Your task to perform on an android device: allow notifications from all sites in the chrome app Image 0: 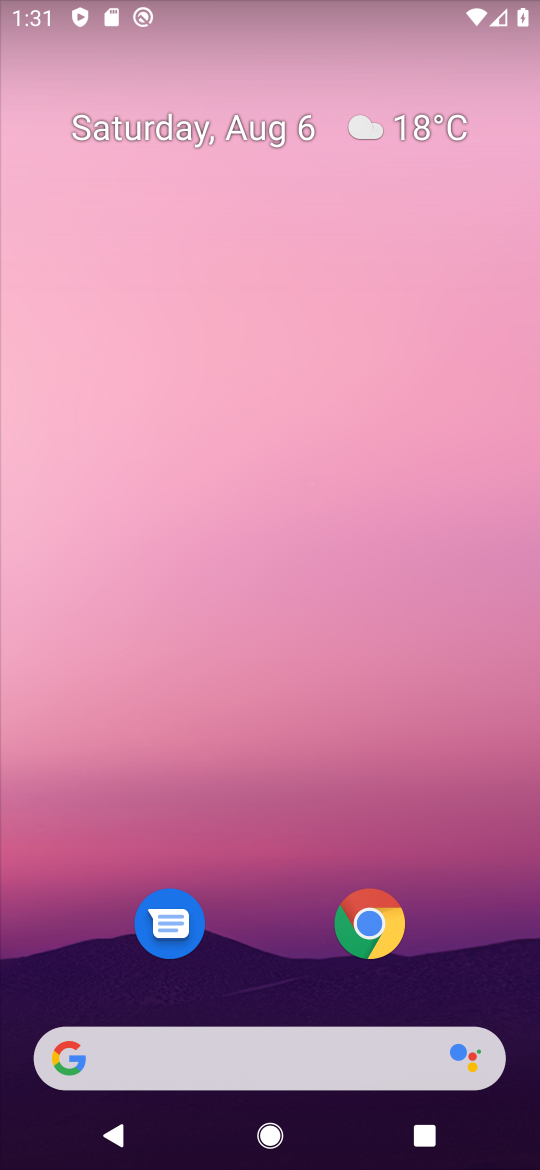
Step 0: click (393, 154)
Your task to perform on an android device: allow notifications from all sites in the chrome app Image 1: 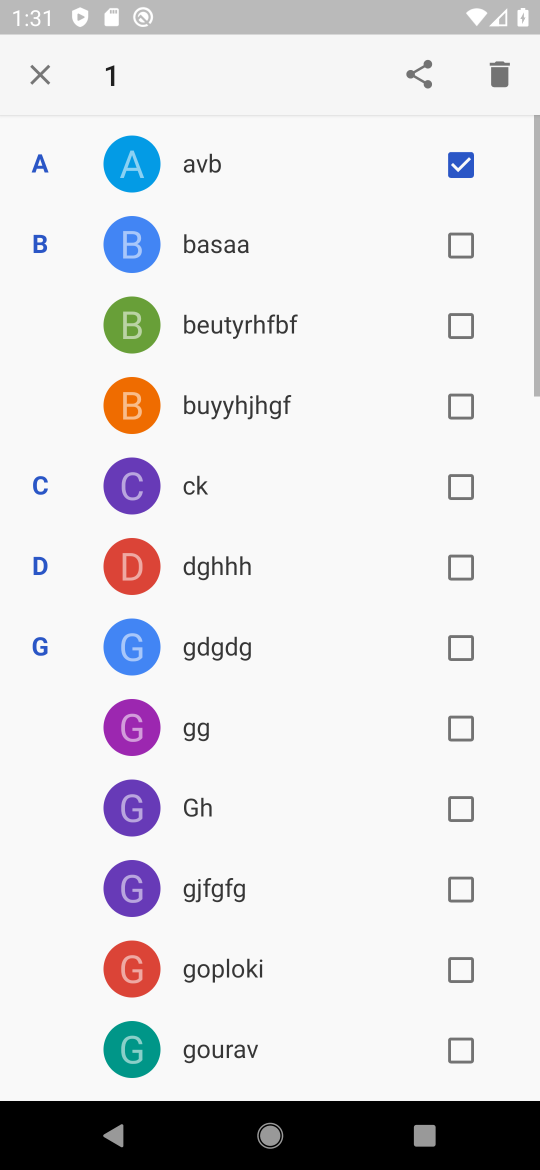
Step 1: drag from (242, 948) to (296, 251)
Your task to perform on an android device: allow notifications from all sites in the chrome app Image 2: 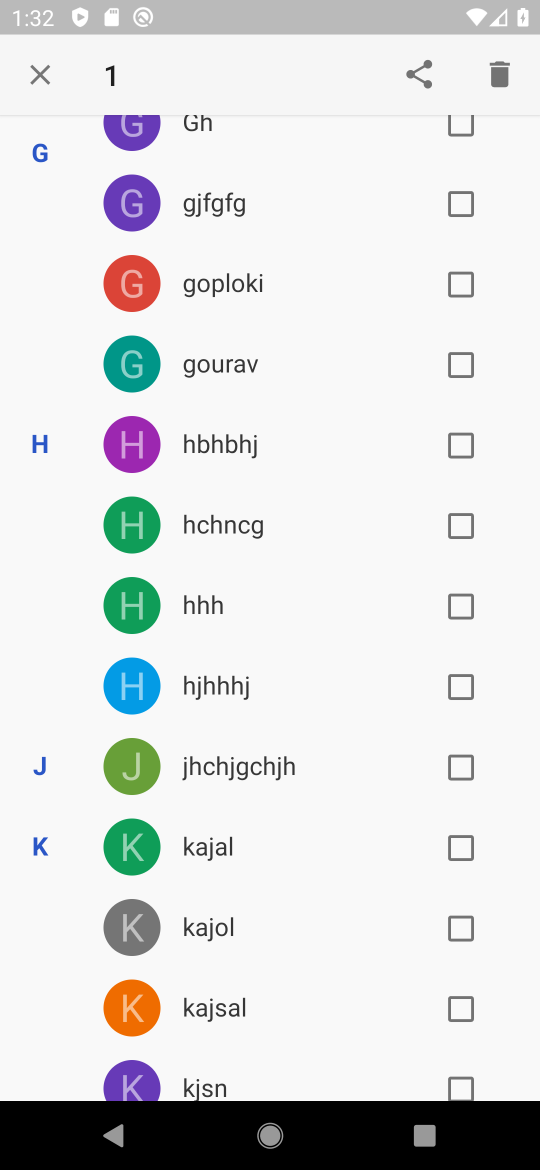
Step 2: press home button
Your task to perform on an android device: allow notifications from all sites in the chrome app Image 3: 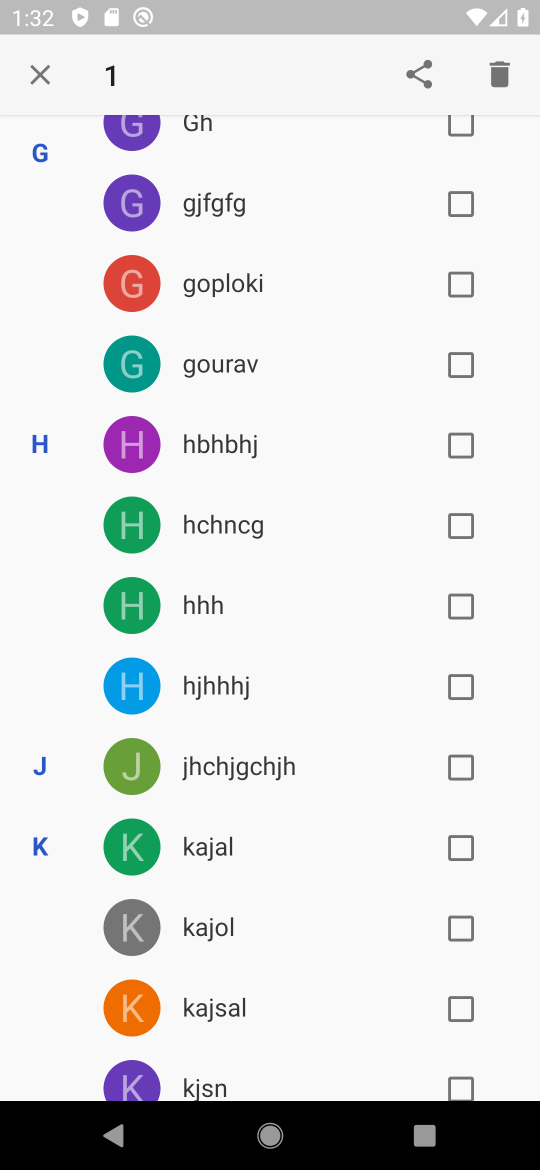
Step 3: press home button
Your task to perform on an android device: allow notifications from all sites in the chrome app Image 4: 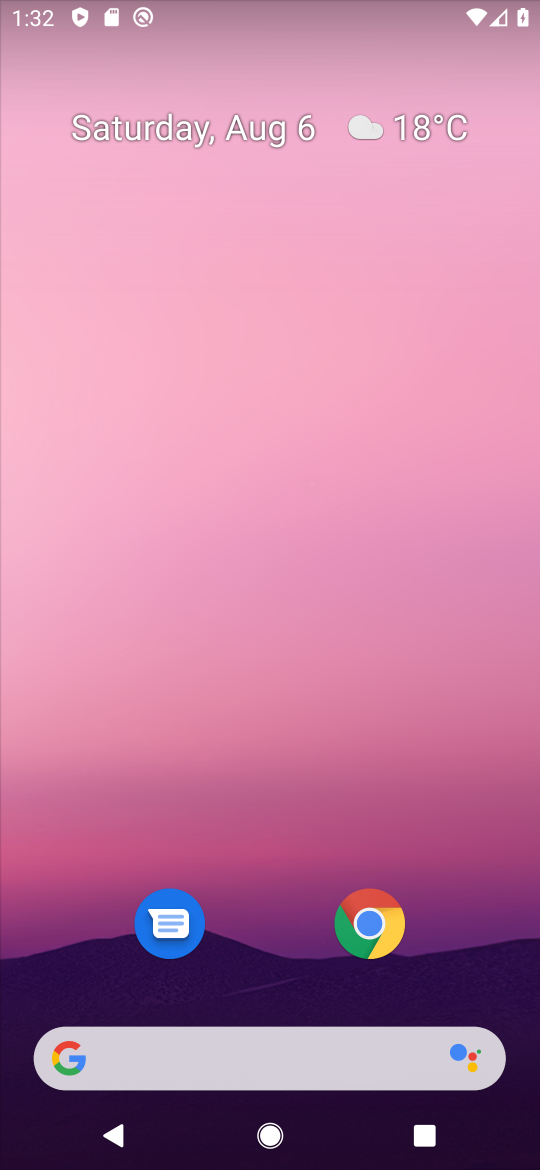
Step 4: drag from (288, 711) to (319, 34)
Your task to perform on an android device: allow notifications from all sites in the chrome app Image 5: 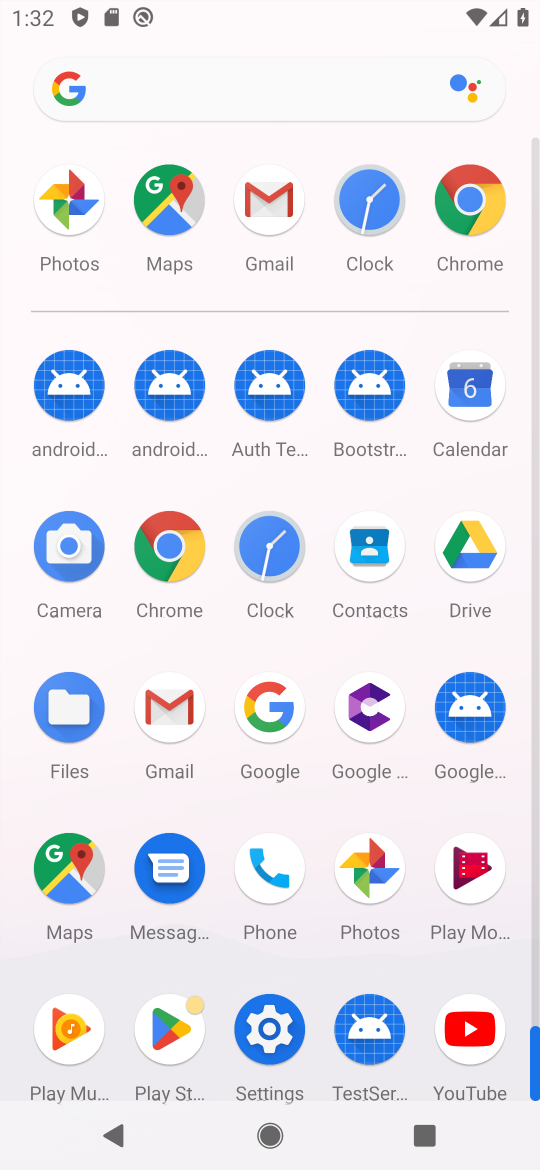
Step 5: click (162, 532)
Your task to perform on an android device: allow notifications from all sites in the chrome app Image 6: 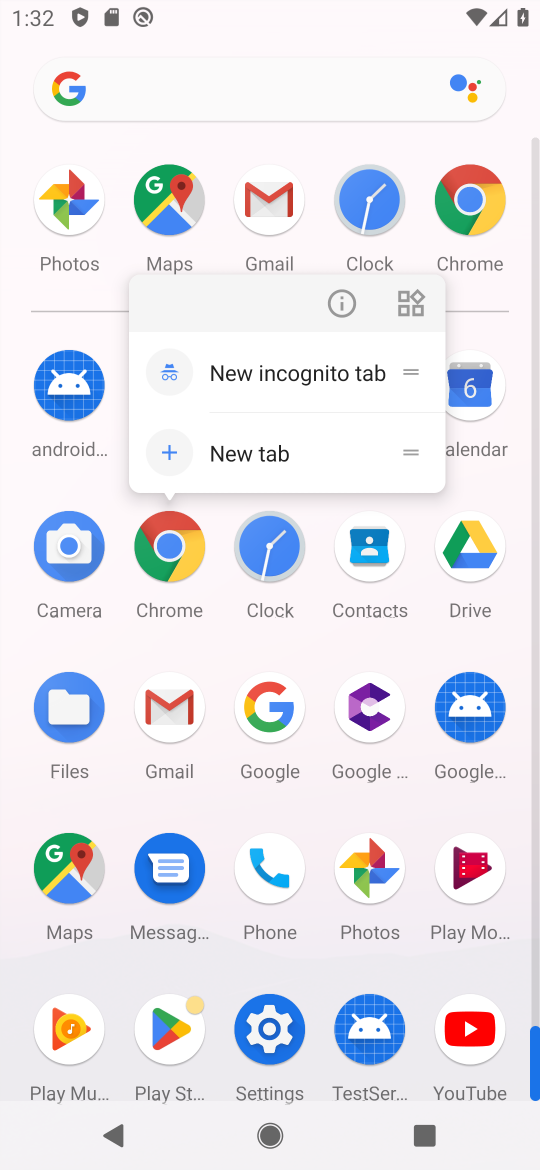
Step 6: click (328, 312)
Your task to perform on an android device: allow notifications from all sites in the chrome app Image 7: 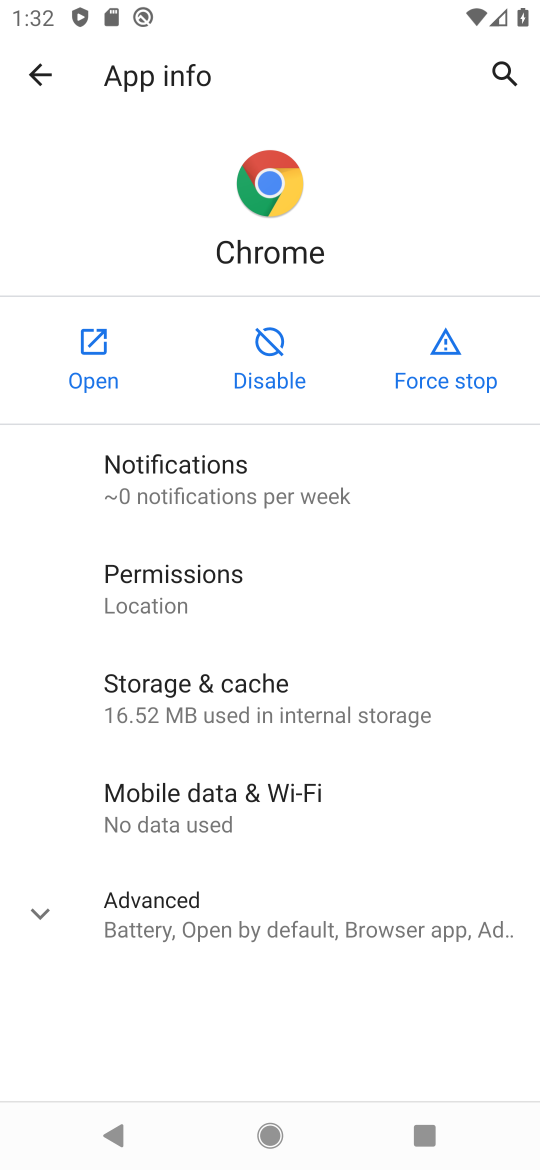
Step 7: click (94, 368)
Your task to perform on an android device: allow notifications from all sites in the chrome app Image 8: 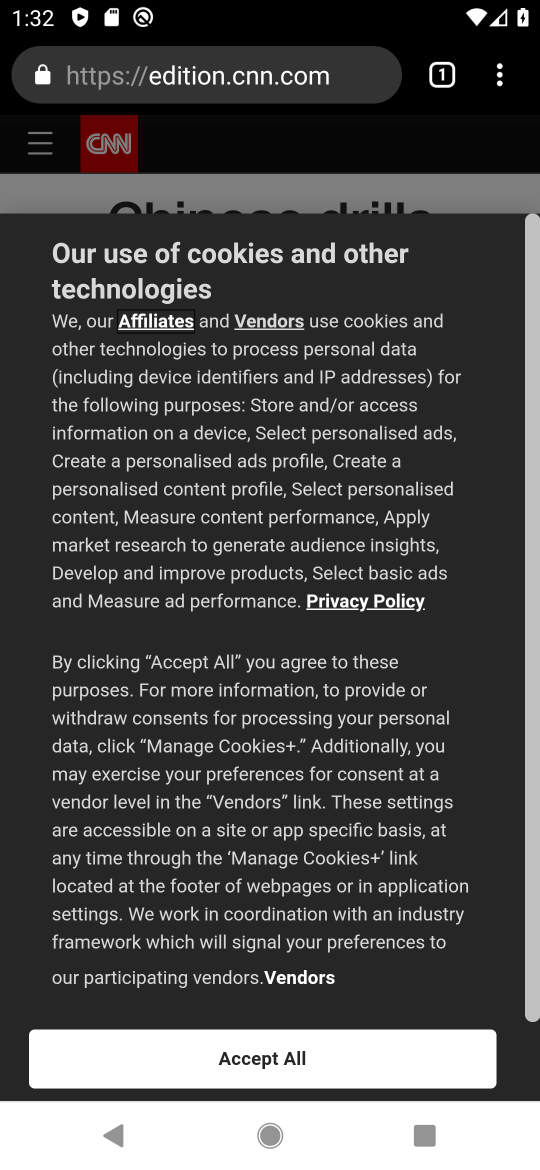
Step 8: drag from (246, 801) to (419, 398)
Your task to perform on an android device: allow notifications from all sites in the chrome app Image 9: 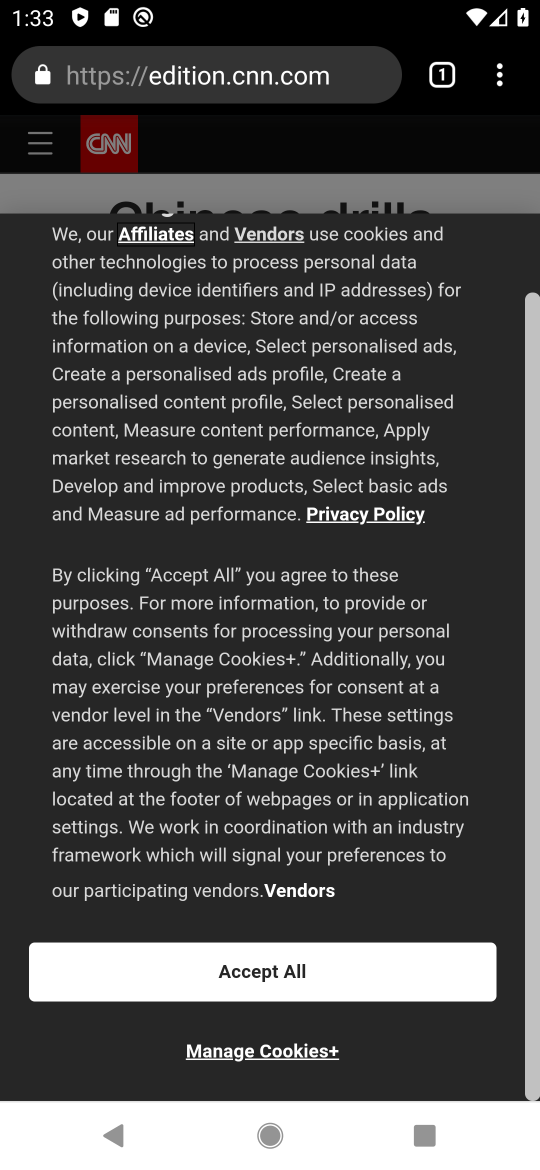
Step 9: drag from (170, 757) to (211, 304)
Your task to perform on an android device: allow notifications from all sites in the chrome app Image 10: 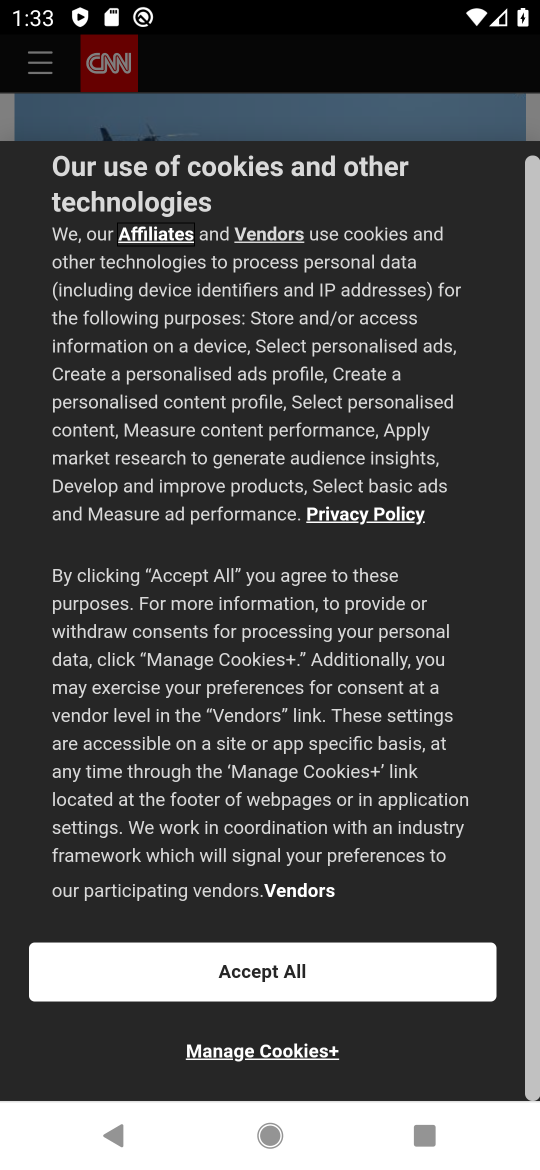
Step 10: drag from (333, 605) to (504, 988)
Your task to perform on an android device: allow notifications from all sites in the chrome app Image 11: 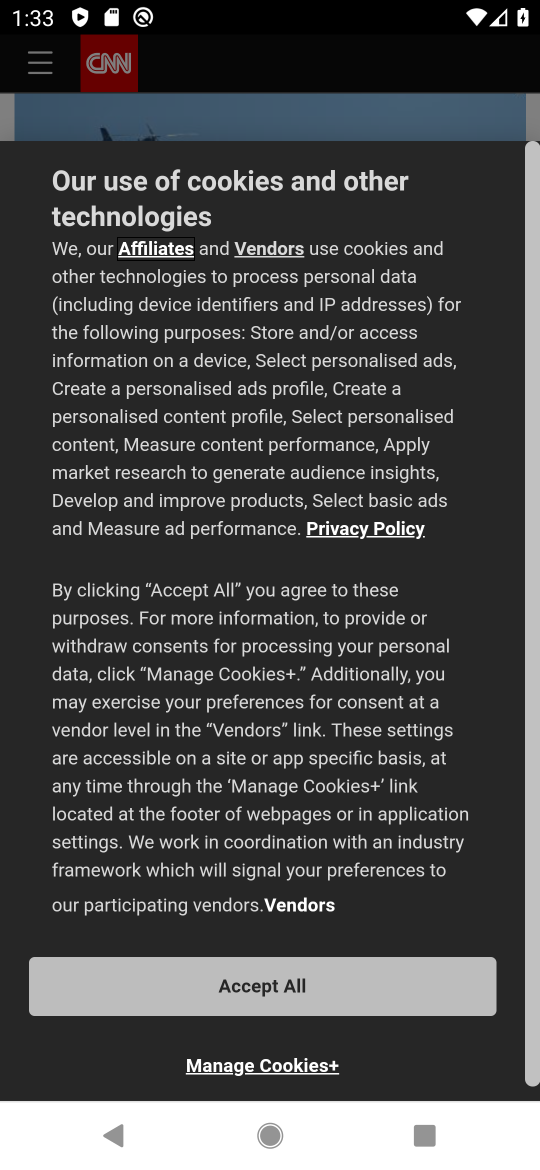
Step 11: drag from (214, 258) to (333, 1071)
Your task to perform on an android device: allow notifications from all sites in the chrome app Image 12: 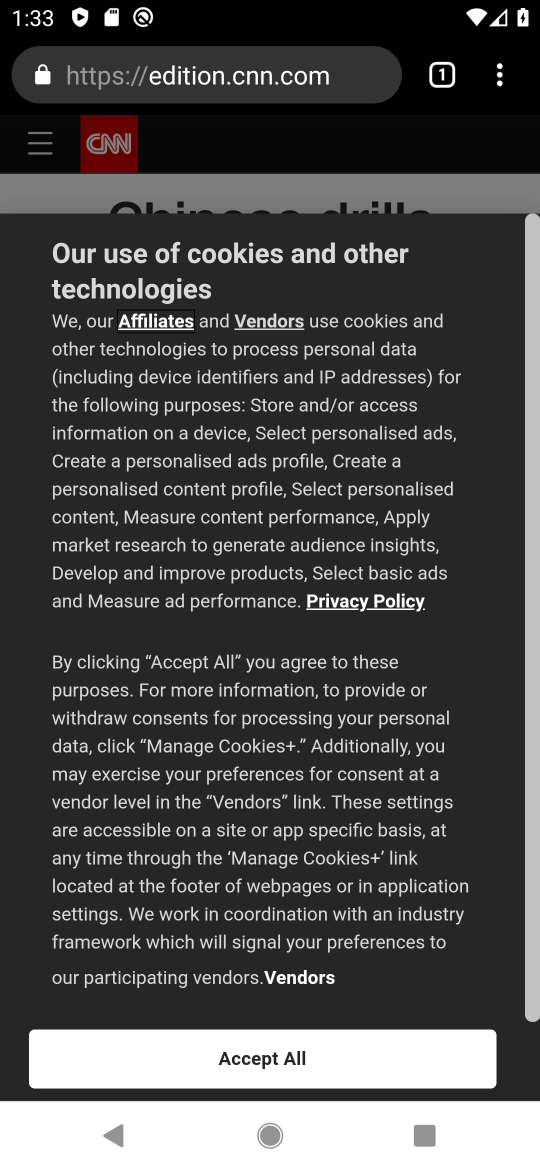
Step 12: drag from (286, 818) to (274, 505)
Your task to perform on an android device: allow notifications from all sites in the chrome app Image 13: 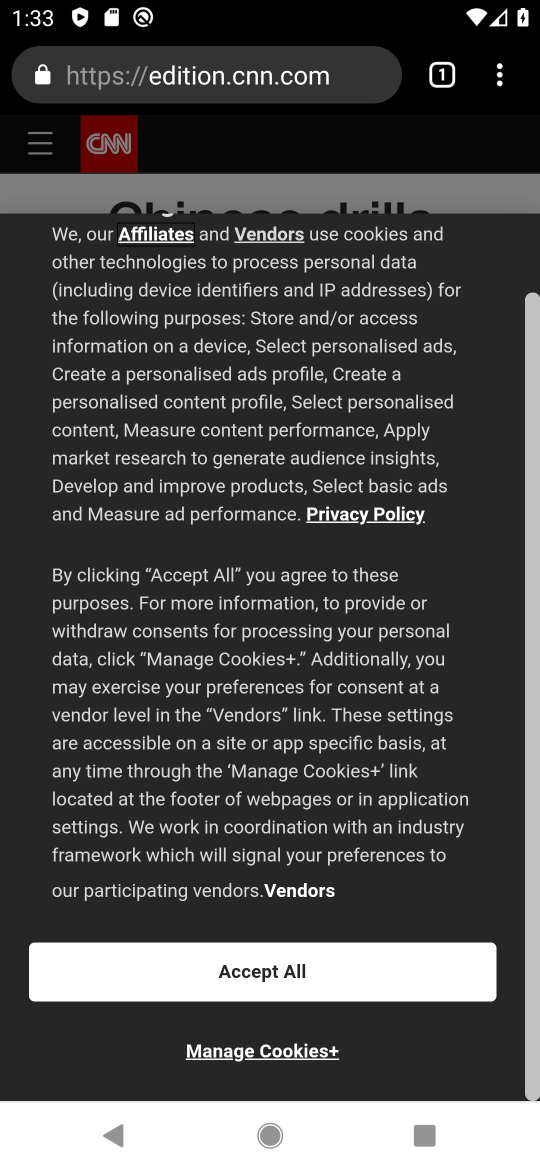
Step 13: drag from (481, 96) to (281, 1008)
Your task to perform on an android device: allow notifications from all sites in the chrome app Image 14: 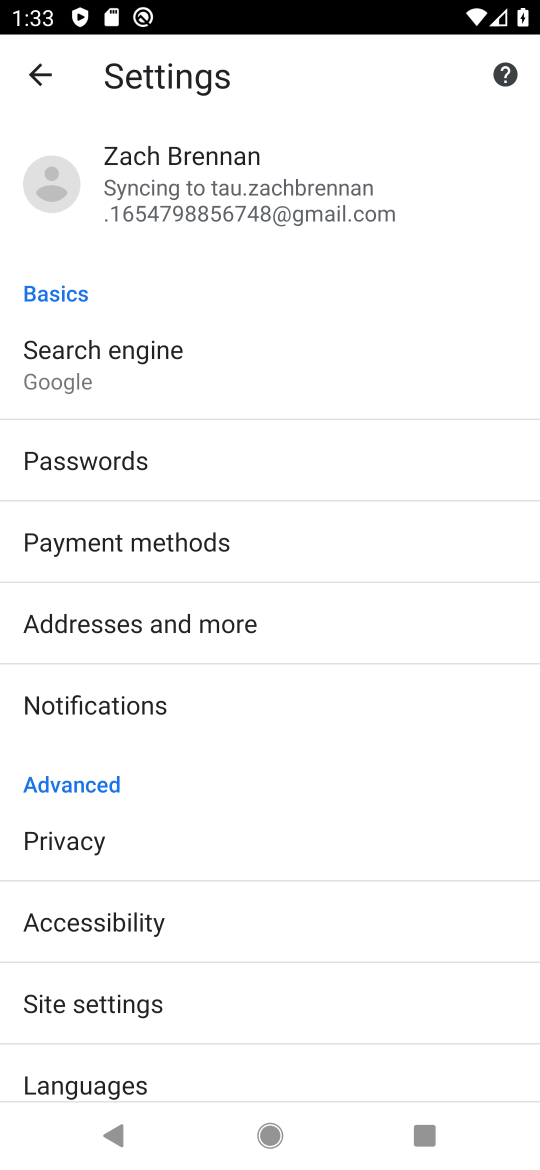
Step 14: drag from (246, 954) to (248, 417)
Your task to perform on an android device: allow notifications from all sites in the chrome app Image 15: 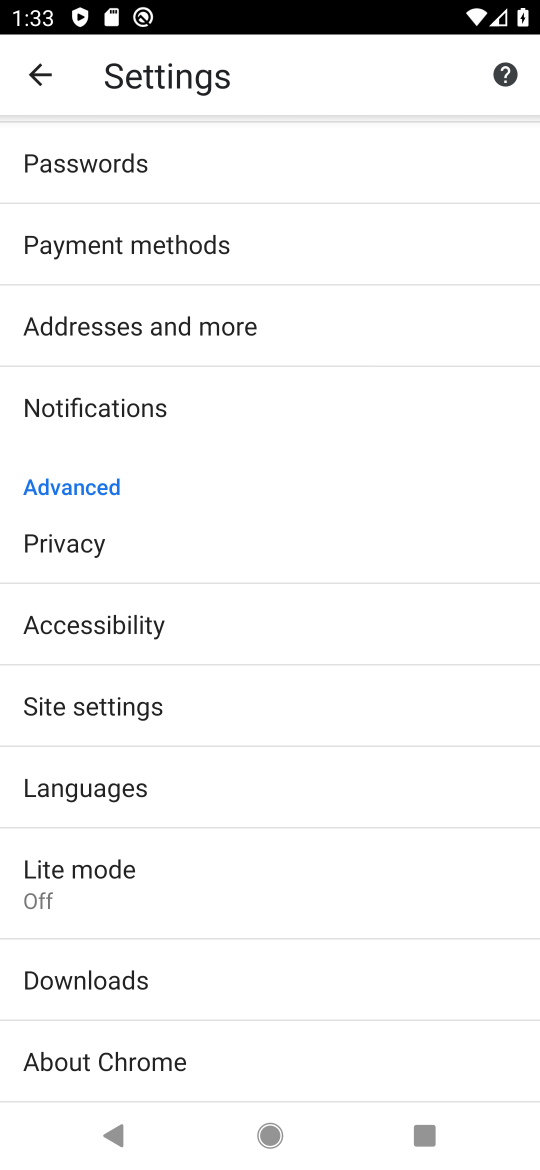
Step 15: click (159, 702)
Your task to perform on an android device: allow notifications from all sites in the chrome app Image 16: 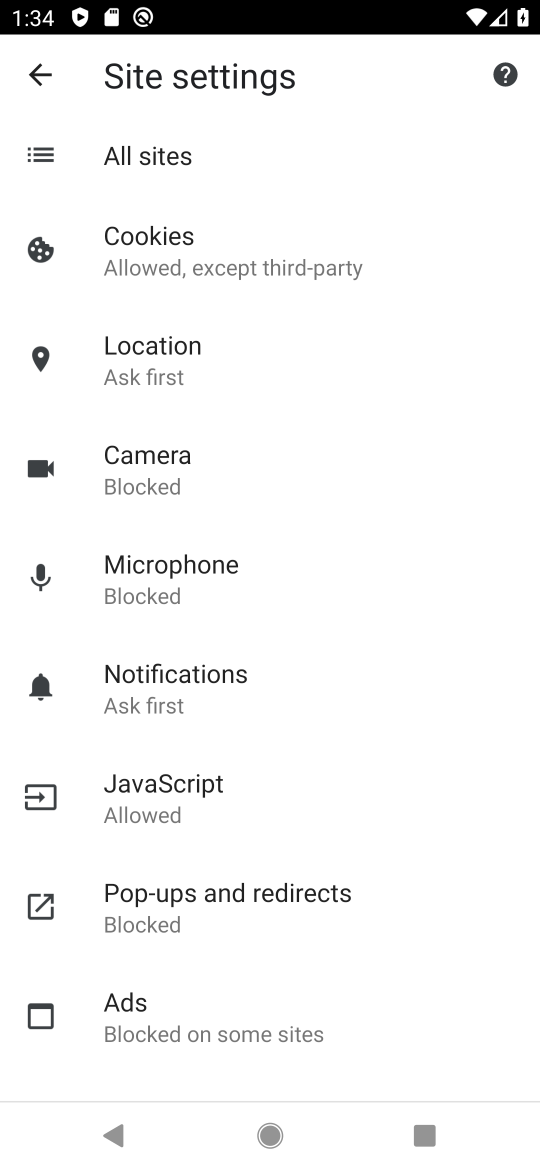
Step 16: drag from (197, 717) to (223, 351)
Your task to perform on an android device: allow notifications from all sites in the chrome app Image 17: 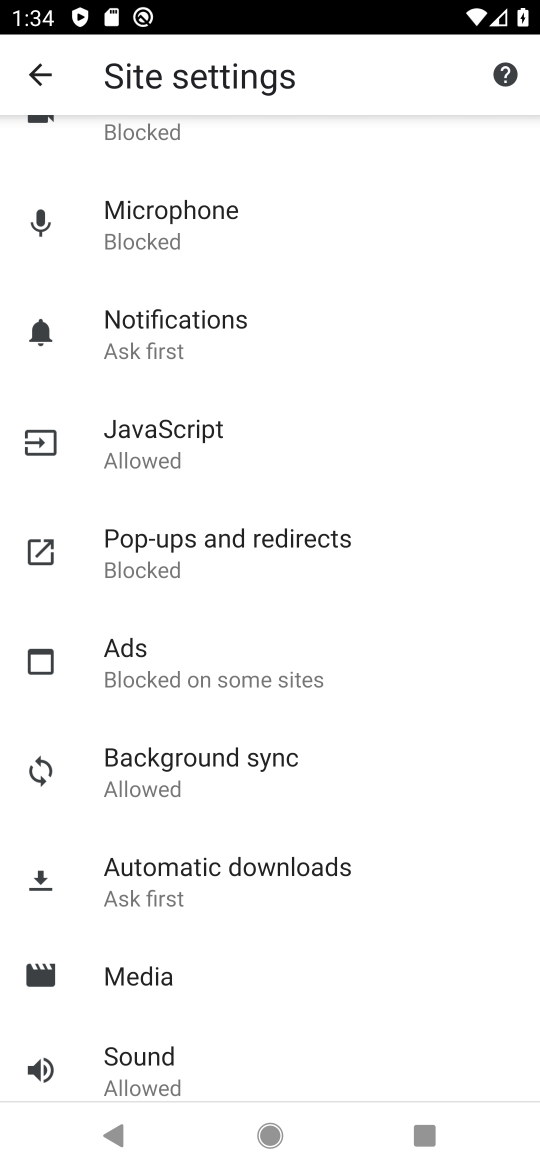
Step 17: drag from (147, 983) to (268, 194)
Your task to perform on an android device: allow notifications from all sites in the chrome app Image 18: 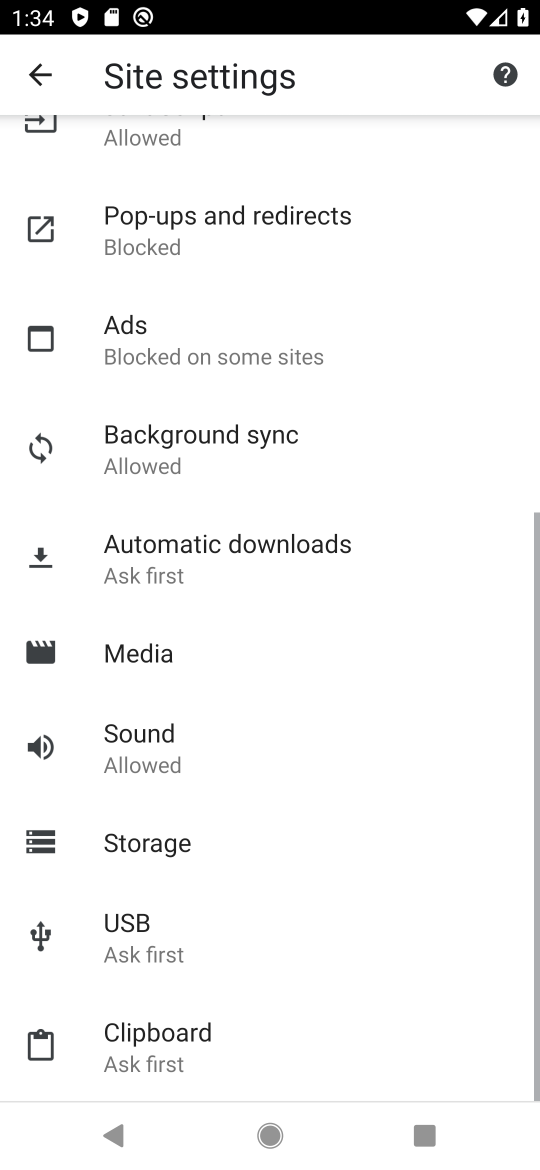
Step 18: drag from (213, 918) to (224, 391)
Your task to perform on an android device: allow notifications from all sites in the chrome app Image 19: 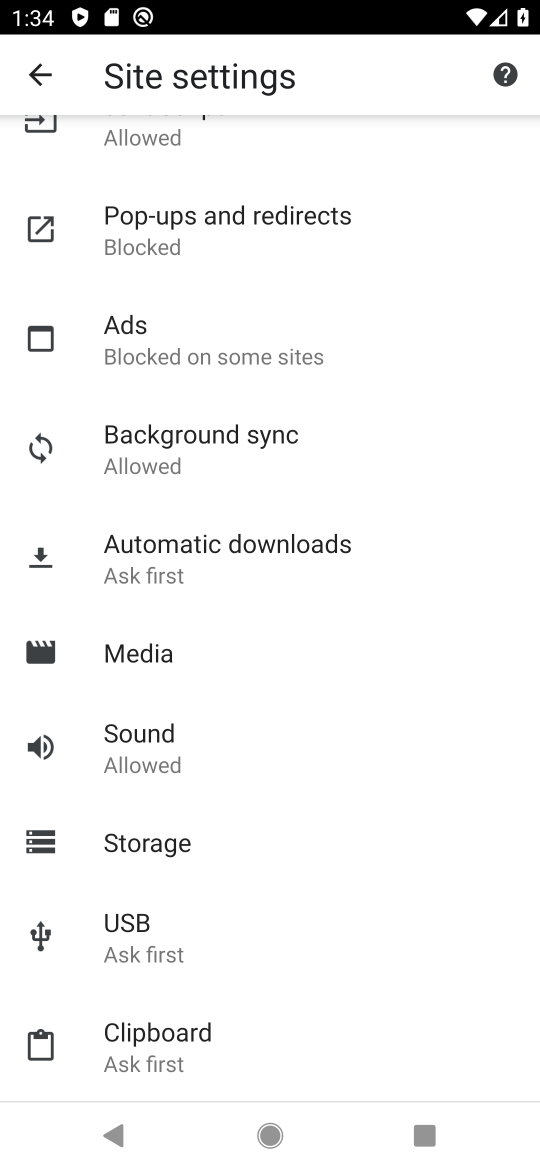
Step 19: drag from (269, 900) to (275, 546)
Your task to perform on an android device: allow notifications from all sites in the chrome app Image 20: 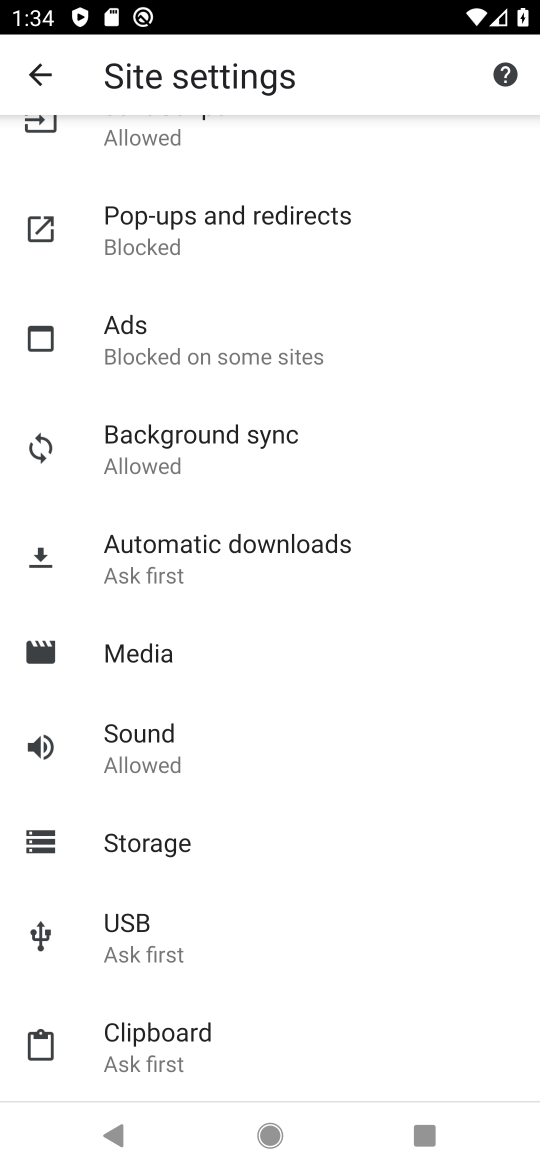
Step 20: drag from (307, 909) to (334, 327)
Your task to perform on an android device: allow notifications from all sites in the chrome app Image 21: 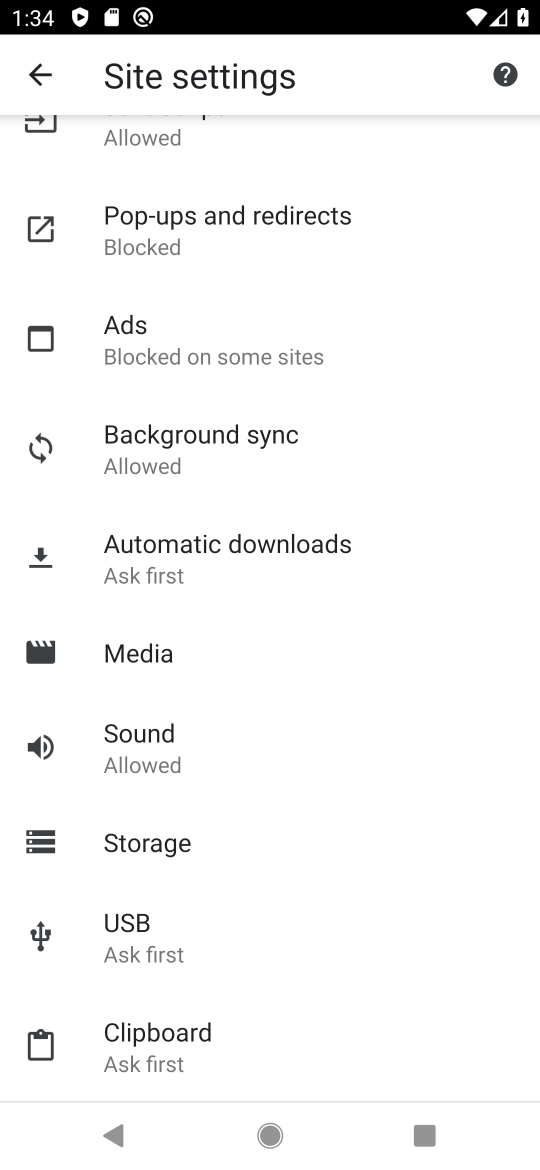
Step 21: drag from (247, 339) to (336, 1129)
Your task to perform on an android device: allow notifications from all sites in the chrome app Image 22: 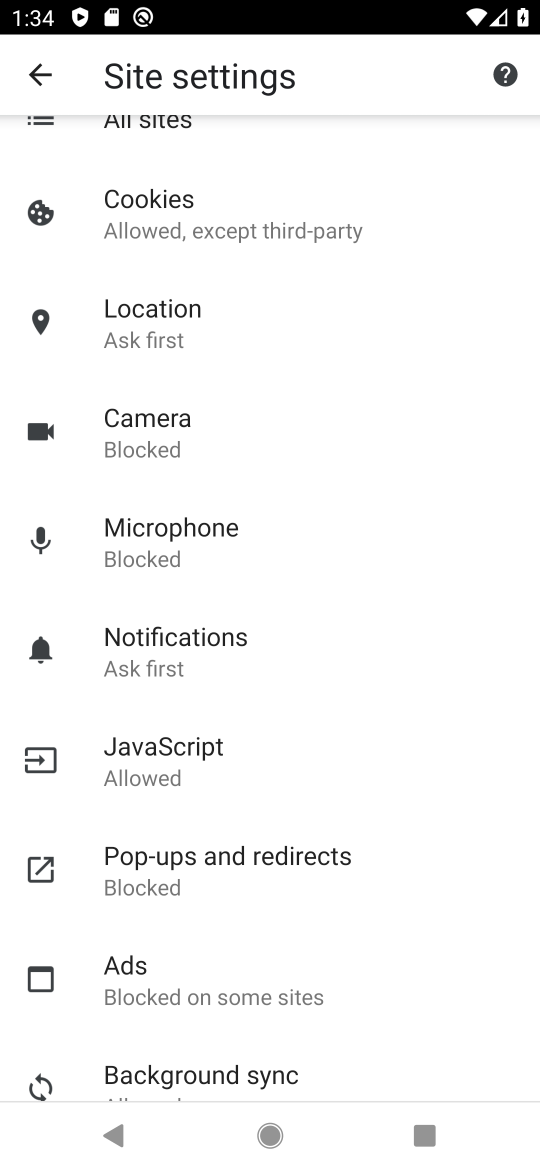
Step 22: click (193, 664)
Your task to perform on an android device: allow notifications from all sites in the chrome app Image 23: 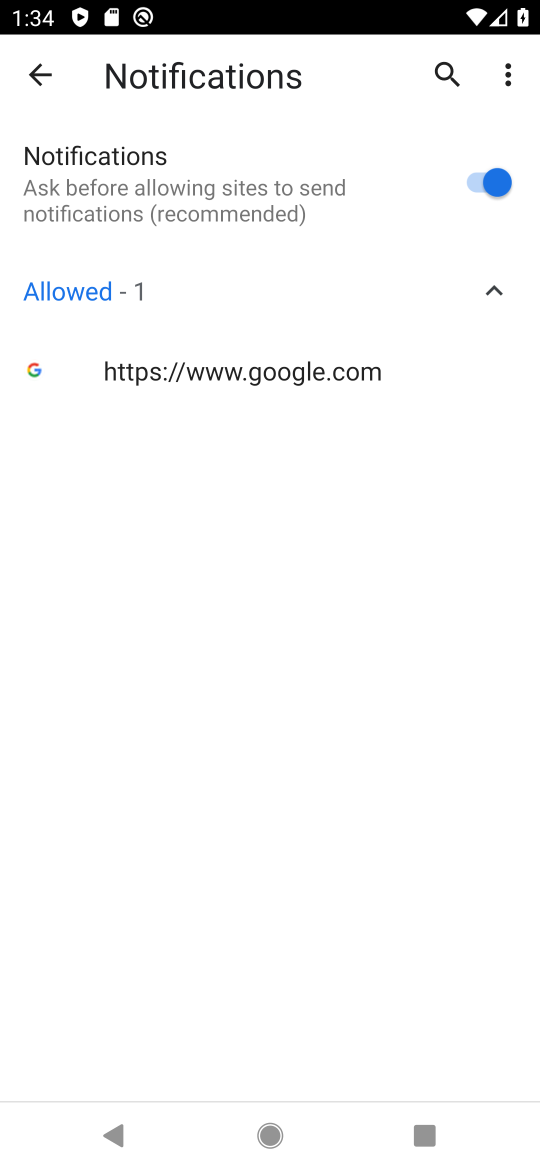
Step 23: task complete